Your task to perform on an android device: turn off sleep mode Image 0: 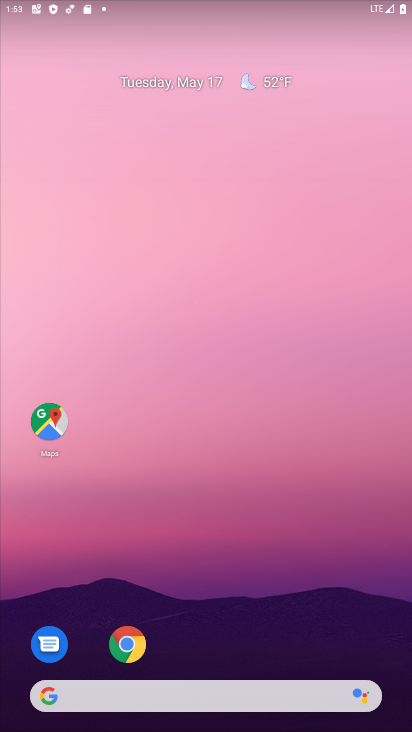
Step 0: drag from (204, 706) to (149, 81)
Your task to perform on an android device: turn off sleep mode Image 1: 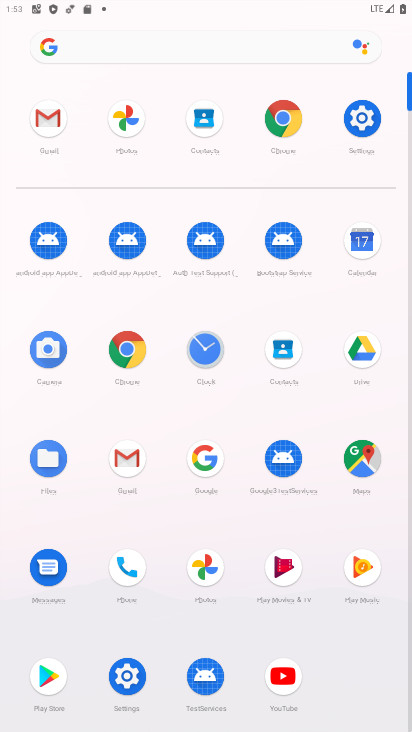
Step 1: click (353, 134)
Your task to perform on an android device: turn off sleep mode Image 2: 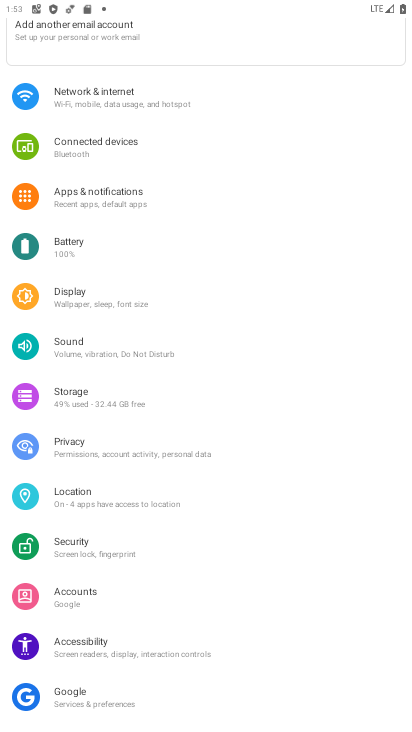
Step 2: click (88, 305)
Your task to perform on an android device: turn off sleep mode Image 3: 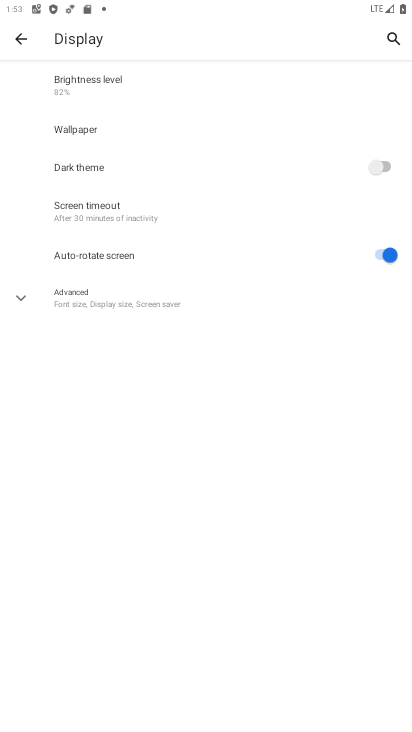
Step 3: click (76, 285)
Your task to perform on an android device: turn off sleep mode Image 4: 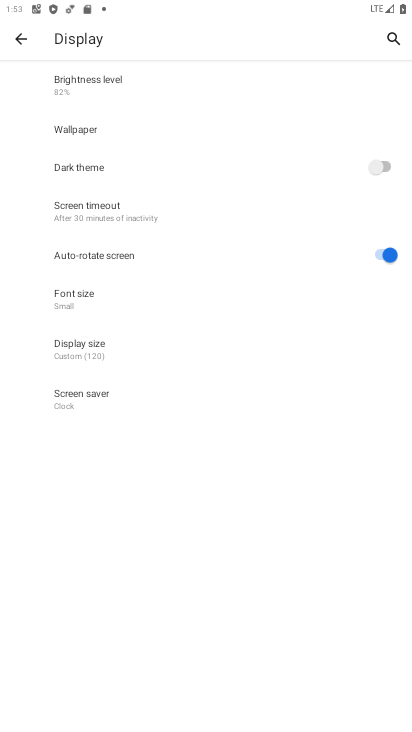
Step 4: task complete